Your task to perform on an android device: install app "Yahoo Mail" Image 0: 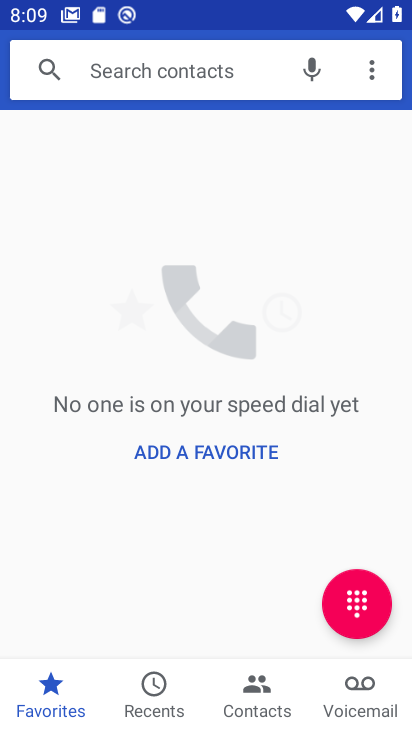
Step 0: press home button
Your task to perform on an android device: install app "Yahoo Mail" Image 1: 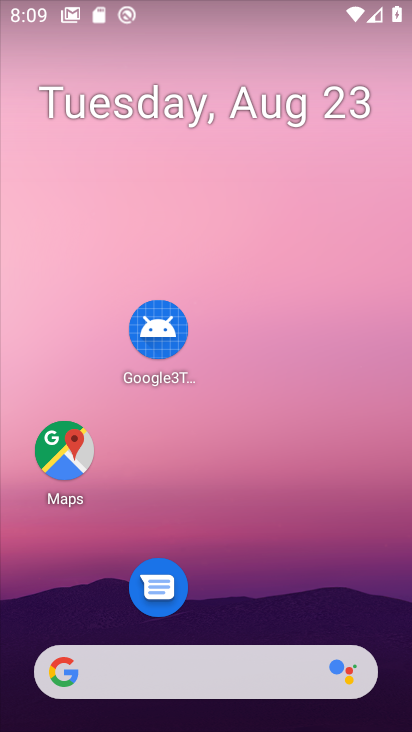
Step 1: drag from (246, 623) to (246, 92)
Your task to perform on an android device: install app "Yahoo Mail" Image 2: 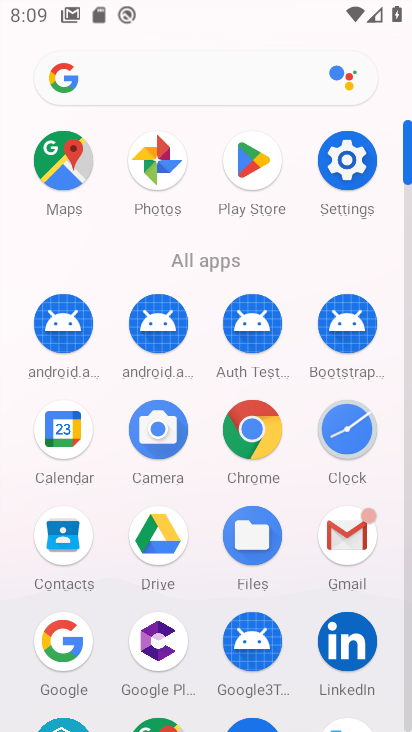
Step 2: click (265, 142)
Your task to perform on an android device: install app "Yahoo Mail" Image 3: 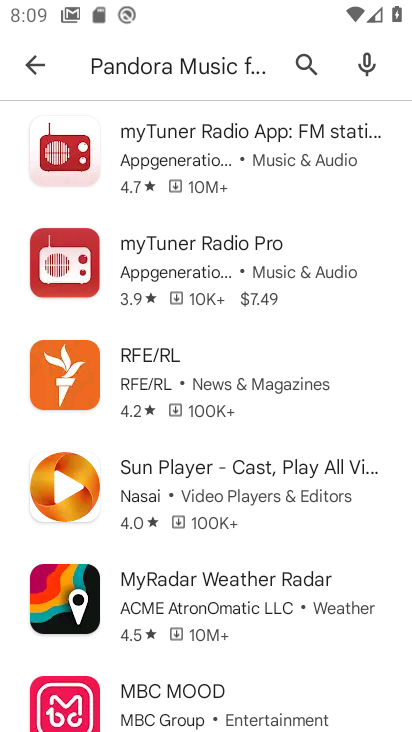
Step 3: click (308, 57)
Your task to perform on an android device: install app "Yahoo Mail" Image 4: 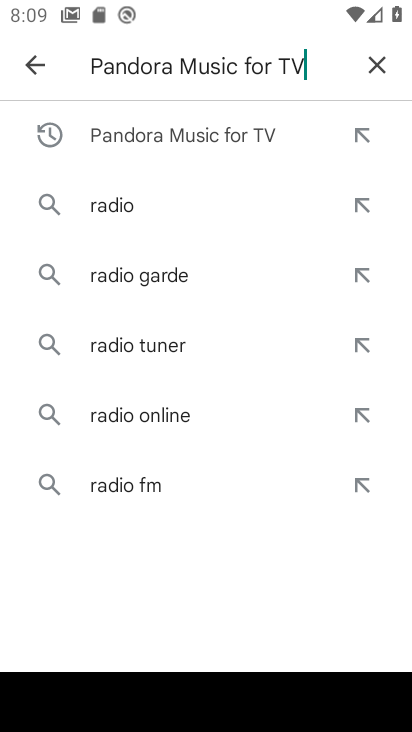
Step 4: click (376, 61)
Your task to perform on an android device: install app "Yahoo Mail" Image 5: 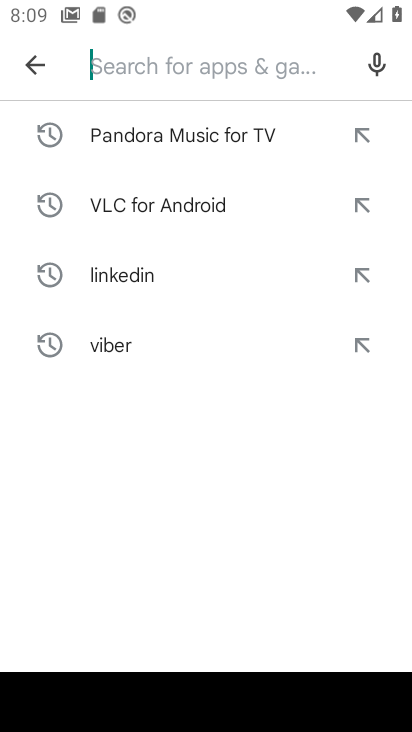
Step 5: type "yahoo mail"
Your task to perform on an android device: install app "Yahoo Mail" Image 6: 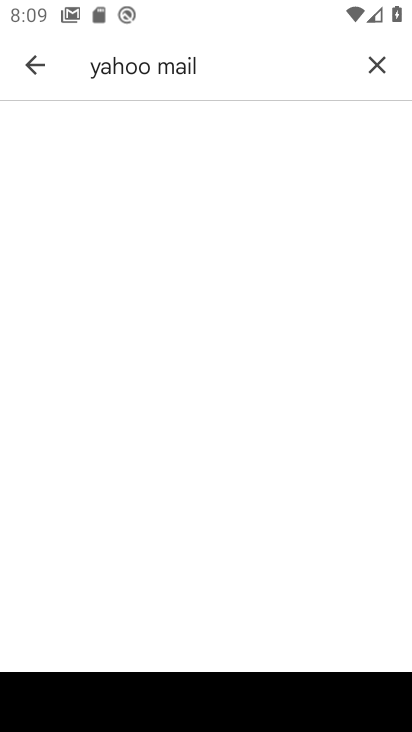
Step 6: task complete